Your task to perform on an android device: Search for amazon basics triple a on newegg.com, select the first entry, and add it to the cart. Image 0: 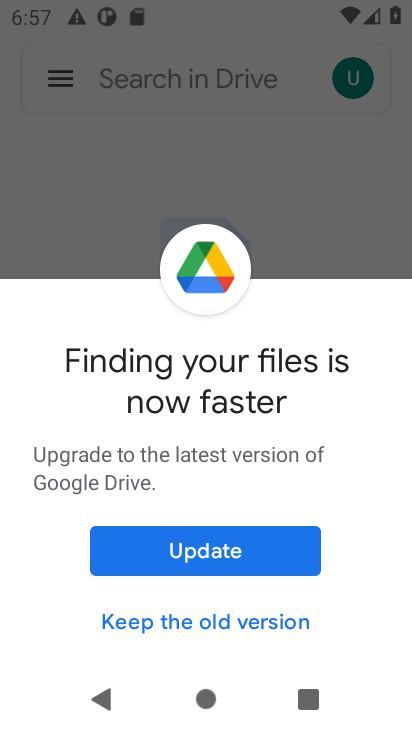
Step 0: press home button
Your task to perform on an android device: Search for amazon basics triple a on newegg.com, select the first entry, and add it to the cart. Image 1: 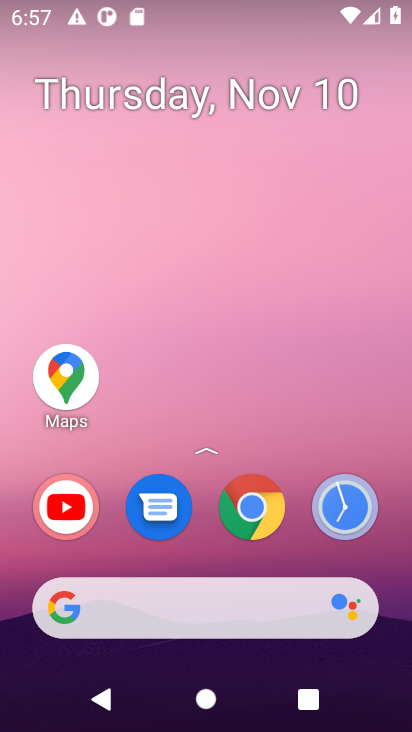
Step 1: drag from (226, 444) to (325, 8)
Your task to perform on an android device: Search for amazon basics triple a on newegg.com, select the first entry, and add it to the cart. Image 2: 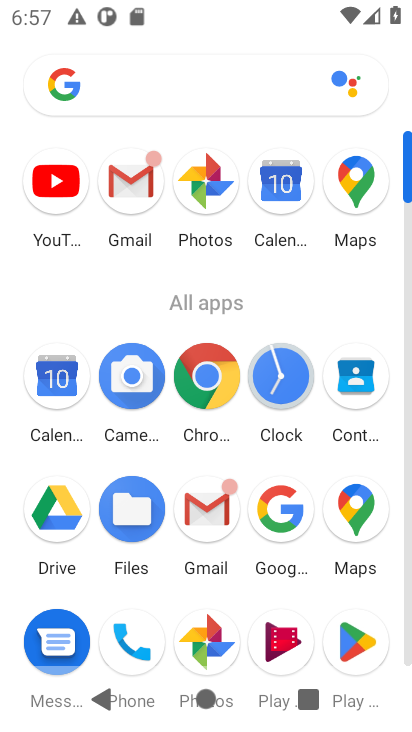
Step 2: drag from (167, 617) to (309, 119)
Your task to perform on an android device: Search for amazon basics triple a on newegg.com, select the first entry, and add it to the cart. Image 3: 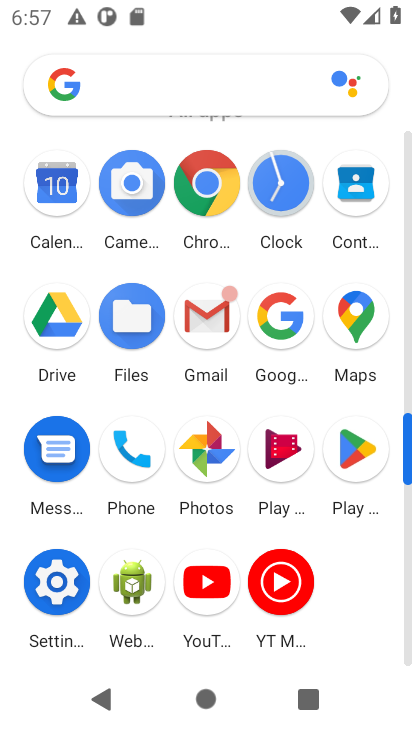
Step 3: click (67, 576)
Your task to perform on an android device: Search for amazon basics triple a on newegg.com, select the first entry, and add it to the cart. Image 4: 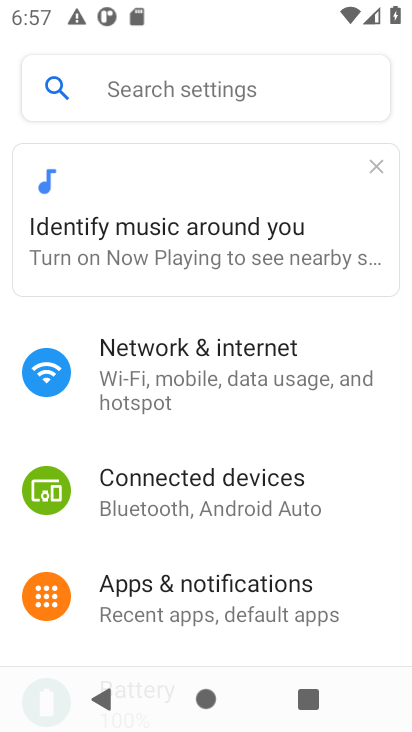
Step 4: drag from (165, 502) to (181, 192)
Your task to perform on an android device: Search for amazon basics triple a on newegg.com, select the first entry, and add it to the cart. Image 5: 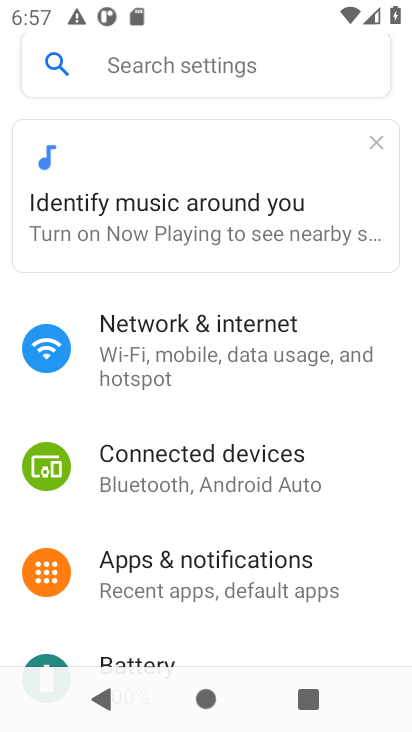
Step 5: drag from (94, 623) to (140, 309)
Your task to perform on an android device: Search for amazon basics triple a on newegg.com, select the first entry, and add it to the cart. Image 6: 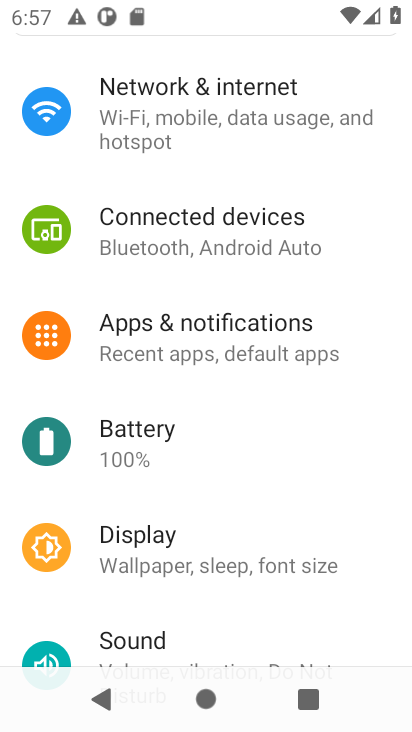
Step 6: click (127, 551)
Your task to perform on an android device: Search for amazon basics triple a on newegg.com, select the first entry, and add it to the cart. Image 7: 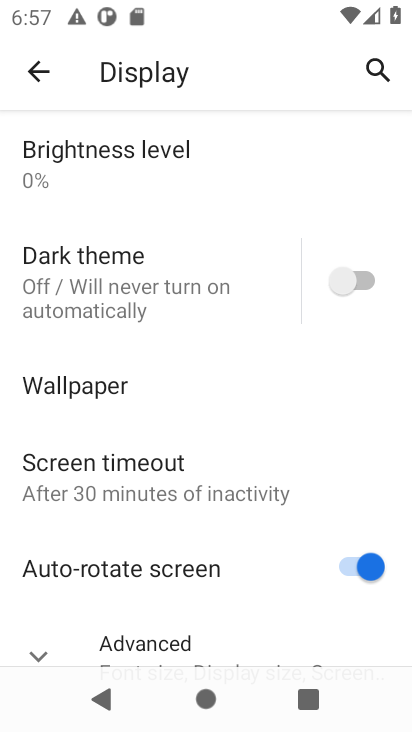
Step 7: drag from (244, 479) to (173, 88)
Your task to perform on an android device: Search for amazon basics triple a on newegg.com, select the first entry, and add it to the cart. Image 8: 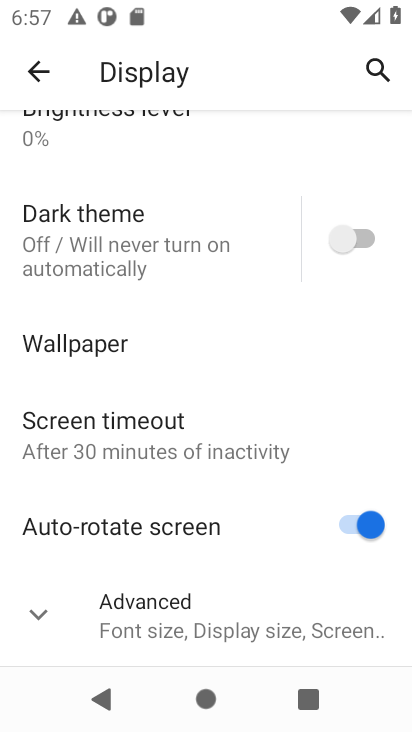
Step 8: click (164, 634)
Your task to perform on an android device: Search for amazon basics triple a on newegg.com, select the first entry, and add it to the cart. Image 9: 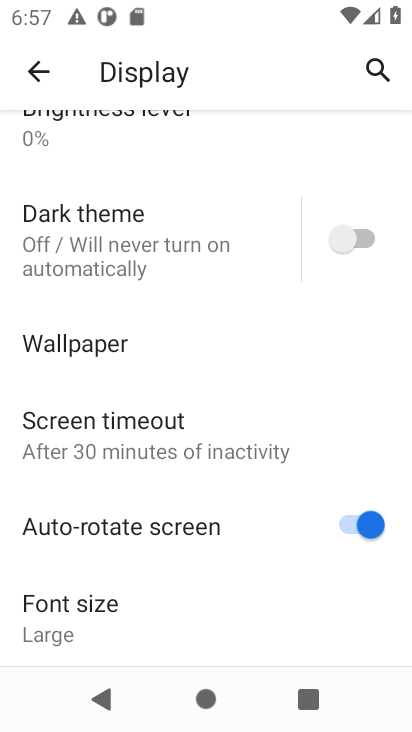
Step 9: drag from (209, 469) to (175, 137)
Your task to perform on an android device: Search for amazon basics triple a on newegg.com, select the first entry, and add it to the cart. Image 10: 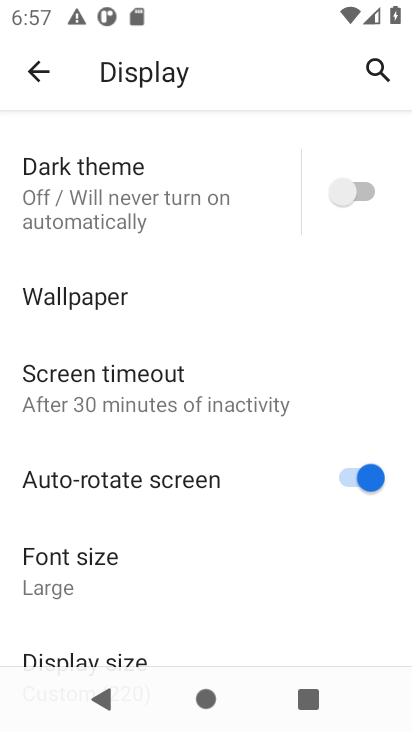
Step 10: drag from (56, 612) to (49, 229)
Your task to perform on an android device: Search for amazon basics triple a on newegg.com, select the first entry, and add it to the cart. Image 11: 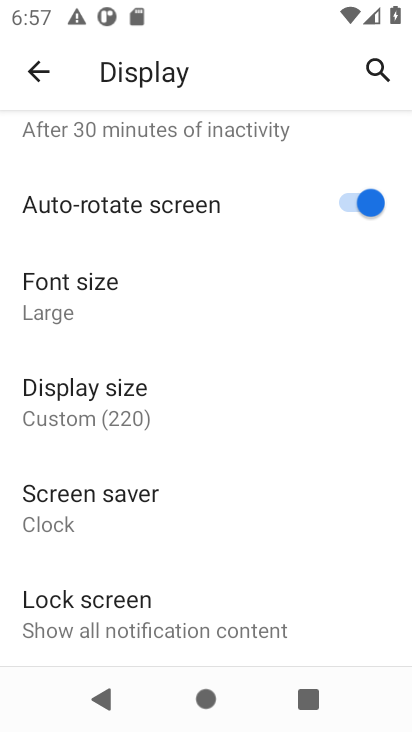
Step 11: click (87, 408)
Your task to perform on an android device: Search for amazon basics triple a on newegg.com, select the first entry, and add it to the cart. Image 12: 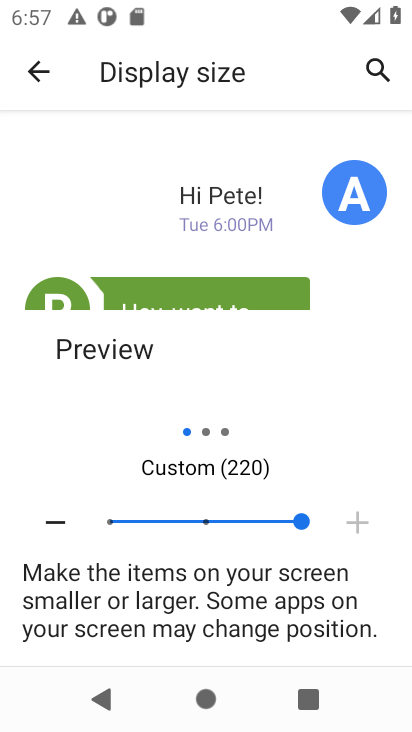
Step 12: click (108, 519)
Your task to perform on an android device: Search for amazon basics triple a on newegg.com, select the first entry, and add it to the cart. Image 13: 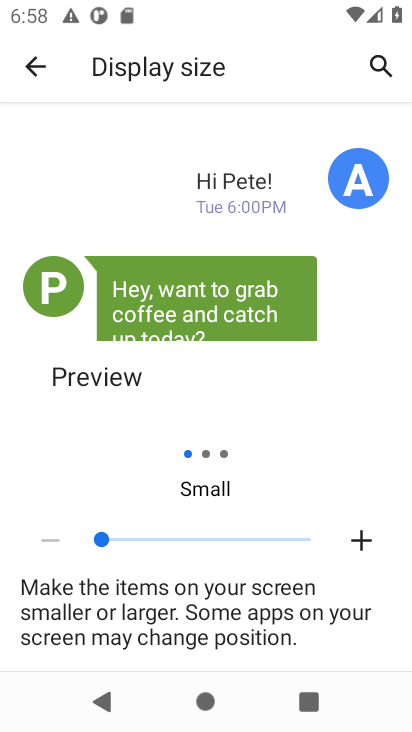
Step 13: press home button
Your task to perform on an android device: Search for amazon basics triple a on newegg.com, select the first entry, and add it to the cart. Image 14: 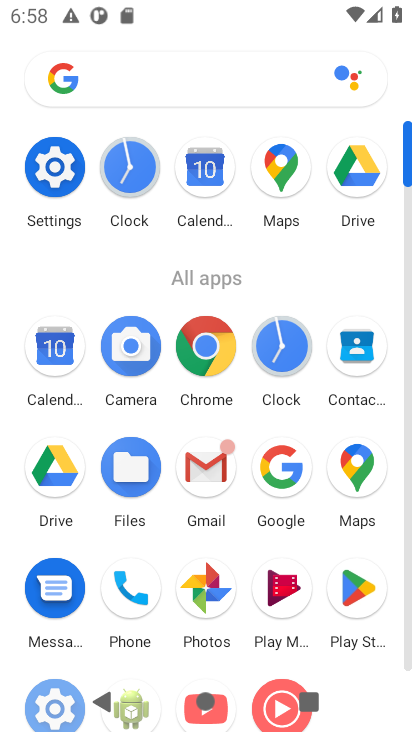
Step 14: press home button
Your task to perform on an android device: Search for amazon basics triple a on newegg.com, select the first entry, and add it to the cart. Image 15: 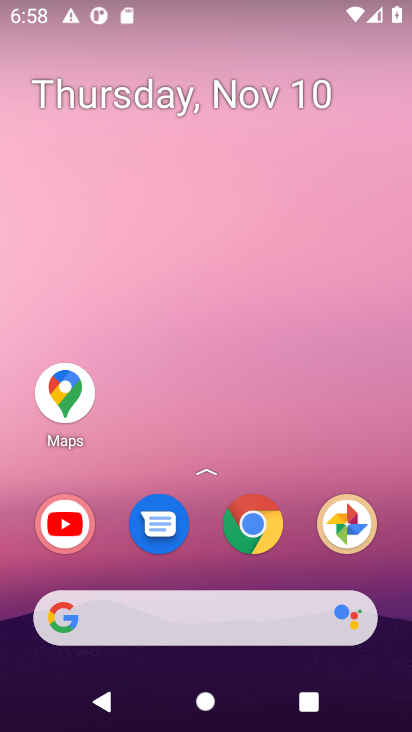
Step 15: click (249, 513)
Your task to perform on an android device: Search for amazon basics triple a on newegg.com, select the first entry, and add it to the cart. Image 16: 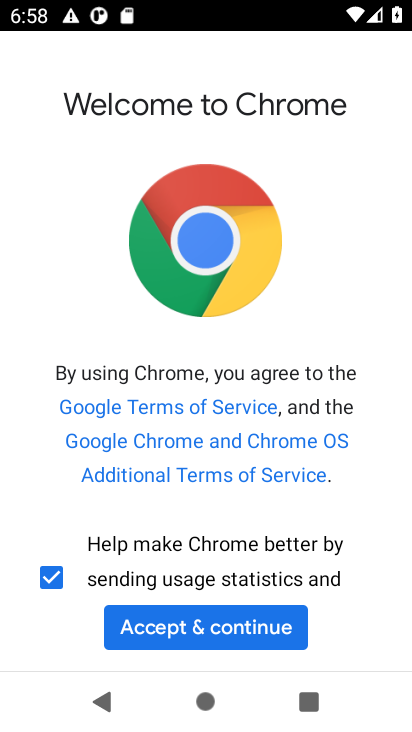
Step 16: click (170, 630)
Your task to perform on an android device: Search for amazon basics triple a on newegg.com, select the first entry, and add it to the cart. Image 17: 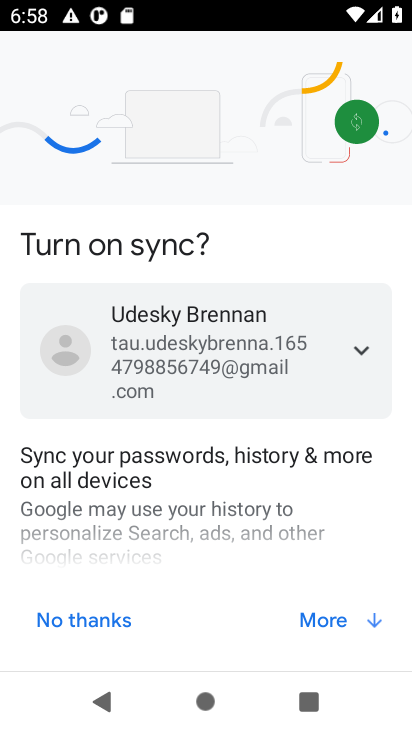
Step 17: click (372, 621)
Your task to perform on an android device: Search for amazon basics triple a on newegg.com, select the first entry, and add it to the cart. Image 18: 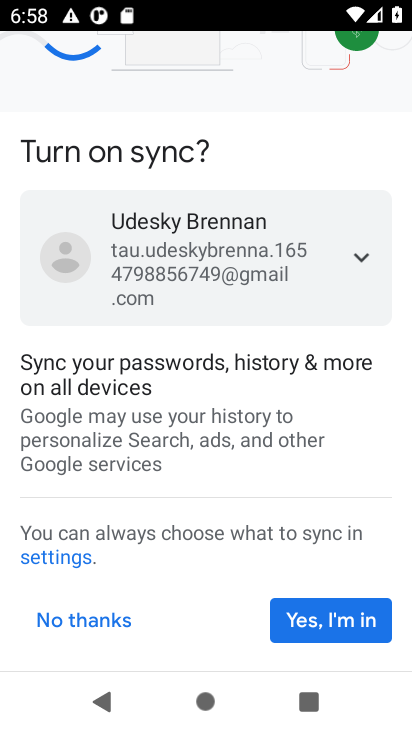
Step 18: click (316, 618)
Your task to perform on an android device: Search for amazon basics triple a on newegg.com, select the first entry, and add it to the cart. Image 19: 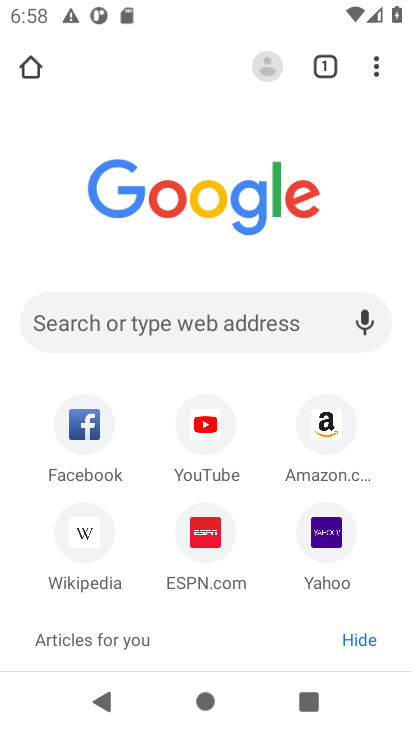
Step 19: click (188, 325)
Your task to perform on an android device: Search for amazon basics triple a on newegg.com, select the first entry, and add it to the cart. Image 20: 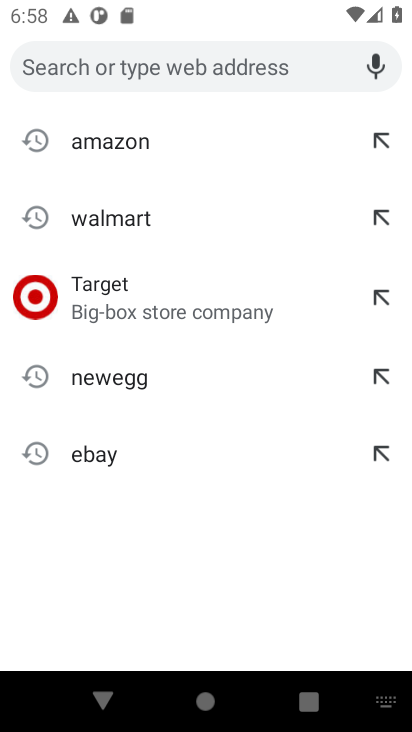
Step 20: click (94, 380)
Your task to perform on an android device: Search for amazon basics triple a on newegg.com, select the first entry, and add it to the cart. Image 21: 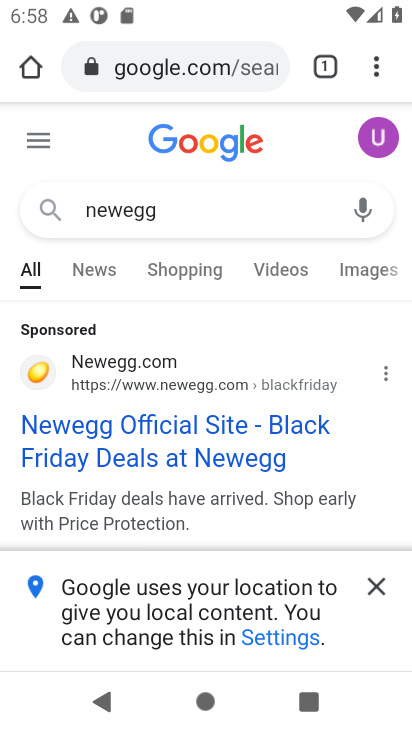
Step 21: click (119, 419)
Your task to perform on an android device: Search for amazon basics triple a on newegg.com, select the first entry, and add it to the cart. Image 22: 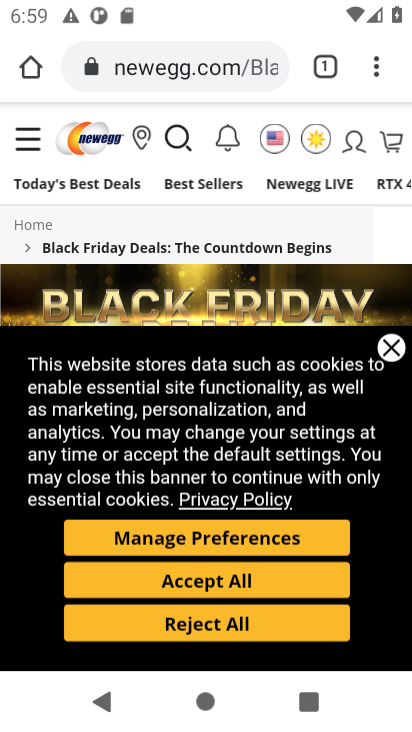
Step 22: click (241, 588)
Your task to perform on an android device: Search for amazon basics triple a on newegg.com, select the first entry, and add it to the cart. Image 23: 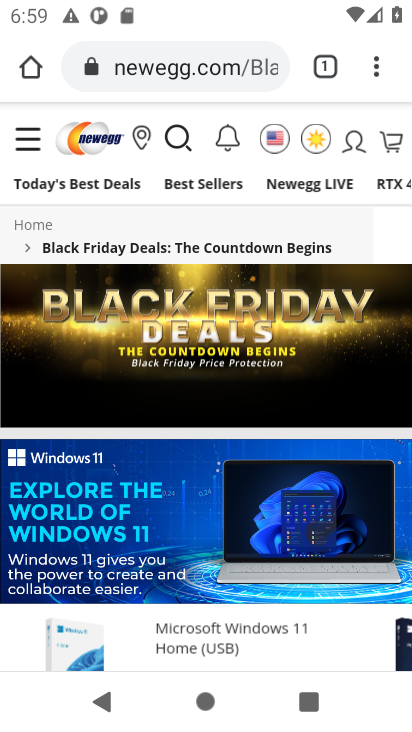
Step 23: click (176, 136)
Your task to perform on an android device: Search for amazon basics triple a on newegg.com, select the first entry, and add it to the cart. Image 24: 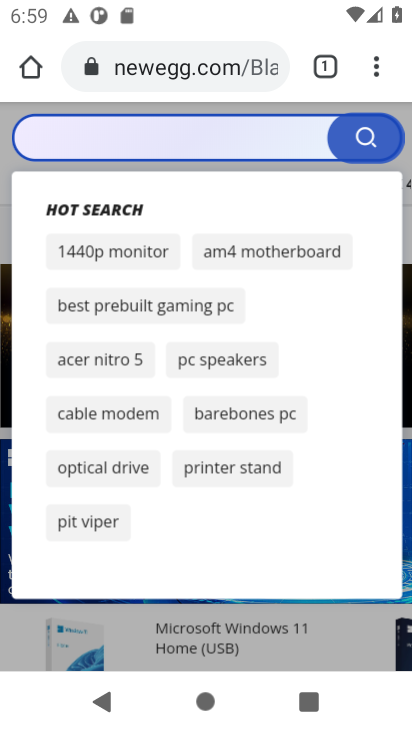
Step 24: type "amazon basics triple a"
Your task to perform on an android device: Search for amazon basics triple a on newegg.com, select the first entry, and add it to the cart. Image 25: 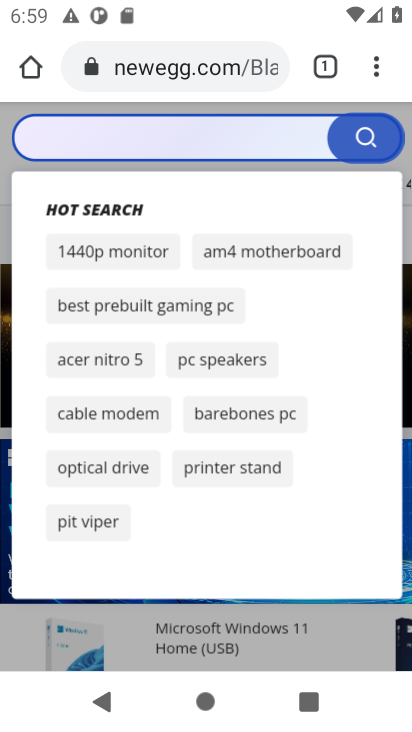
Step 25: click (85, 139)
Your task to perform on an android device: Search for amazon basics triple a on newegg.com, select the first entry, and add it to the cart. Image 26: 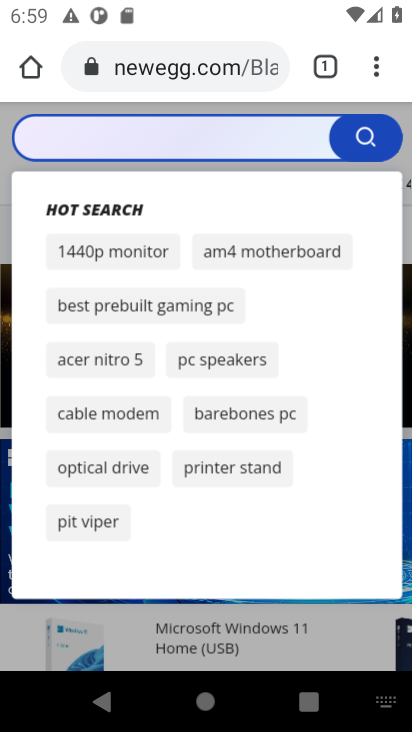
Step 26: type "amazon basics triple a"
Your task to perform on an android device: Search for amazon basics triple a on newegg.com, select the first entry, and add it to the cart. Image 27: 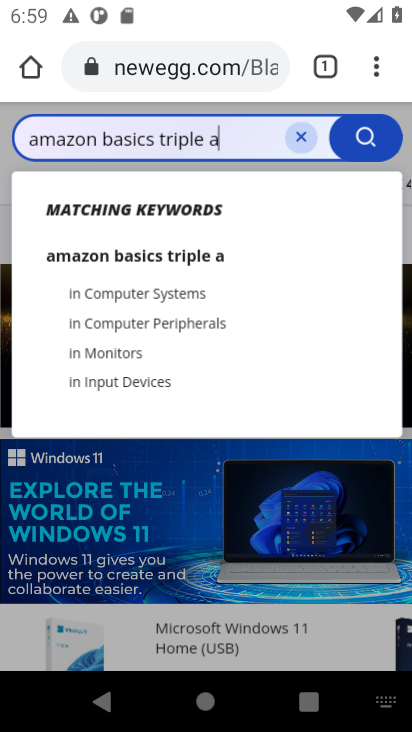
Step 27: click (194, 256)
Your task to perform on an android device: Search for amazon basics triple a on newegg.com, select the first entry, and add it to the cart. Image 28: 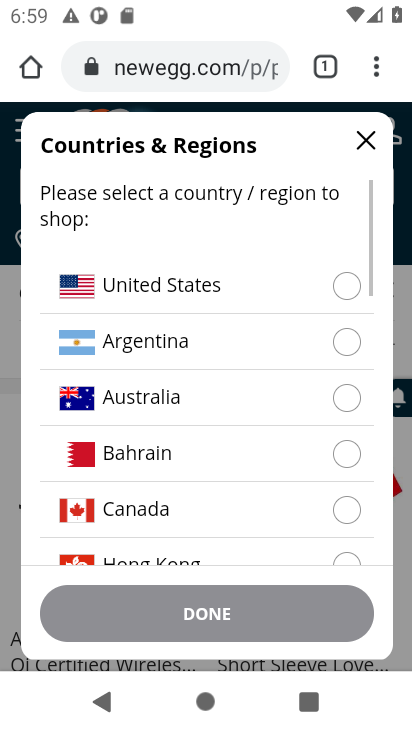
Step 28: click (355, 283)
Your task to perform on an android device: Search for amazon basics triple a on newegg.com, select the first entry, and add it to the cart. Image 29: 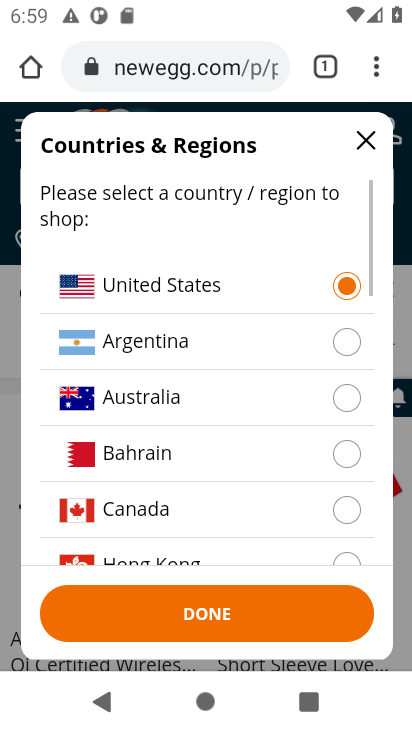
Step 29: click (183, 612)
Your task to perform on an android device: Search for amazon basics triple a on newegg.com, select the first entry, and add it to the cart. Image 30: 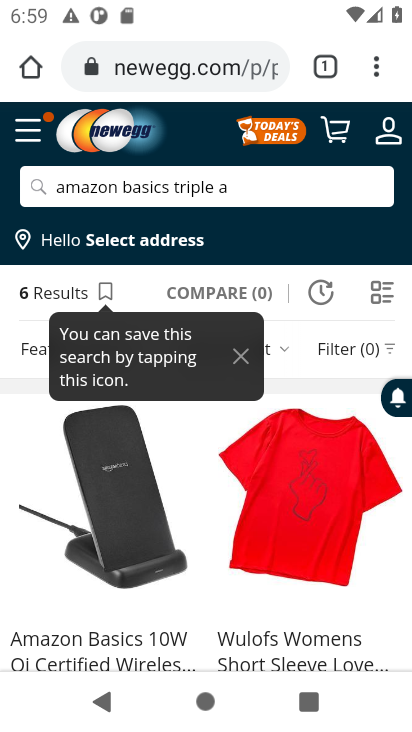
Step 30: drag from (194, 597) to (326, 216)
Your task to perform on an android device: Search for amazon basics triple a on newegg.com, select the first entry, and add it to the cart. Image 31: 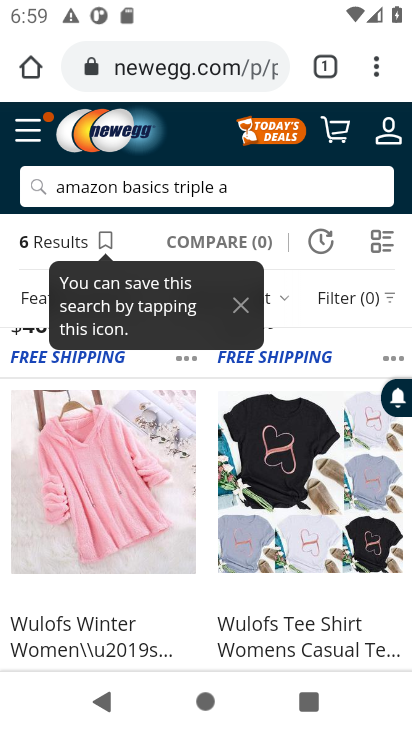
Step 31: click (257, 183)
Your task to perform on an android device: Search for amazon basics triple a on newegg.com, select the first entry, and add it to the cart. Image 32: 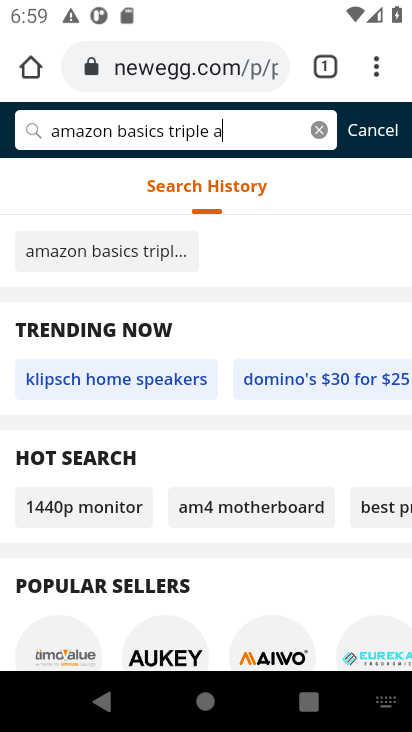
Step 32: type " battery"
Your task to perform on an android device: Search for amazon basics triple a on newegg.com, select the first entry, and add it to the cart. Image 33: 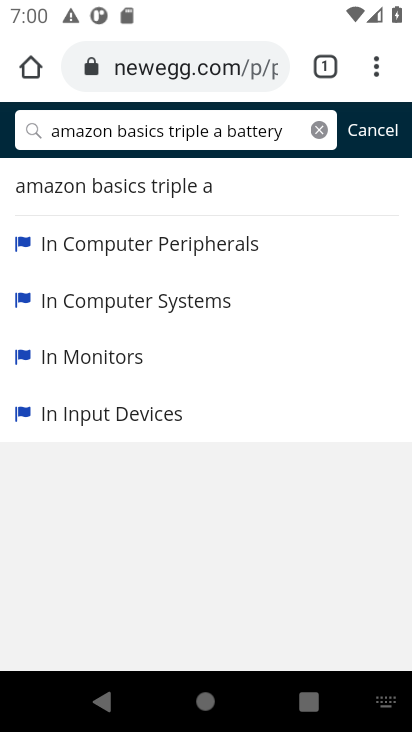
Step 33: click (187, 185)
Your task to perform on an android device: Search for amazon basics triple a on newegg.com, select the first entry, and add it to the cart. Image 34: 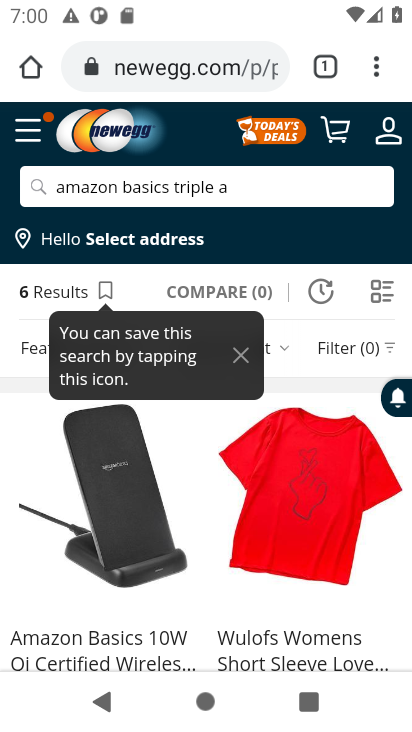
Step 34: task complete